Your task to perform on an android device: change your default location settings in chrome Image 0: 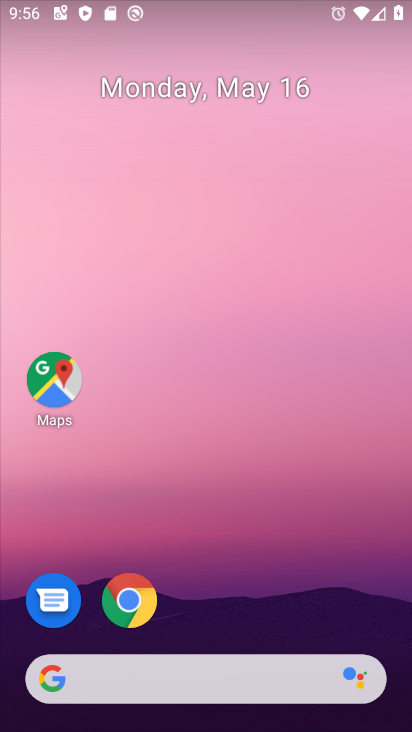
Step 0: click (269, 55)
Your task to perform on an android device: change your default location settings in chrome Image 1: 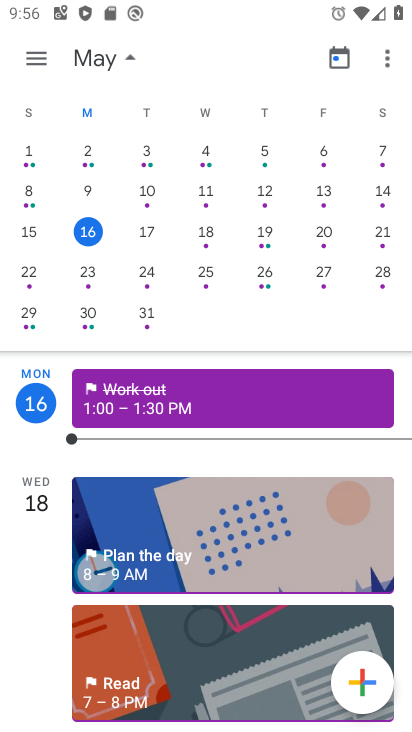
Step 1: press home button
Your task to perform on an android device: change your default location settings in chrome Image 2: 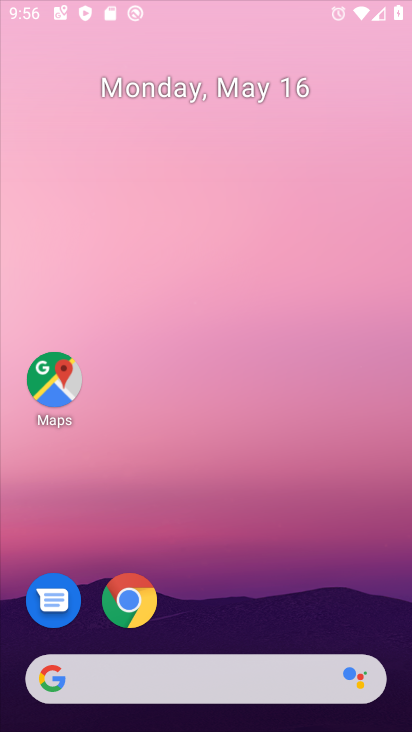
Step 2: drag from (240, 591) to (254, 62)
Your task to perform on an android device: change your default location settings in chrome Image 3: 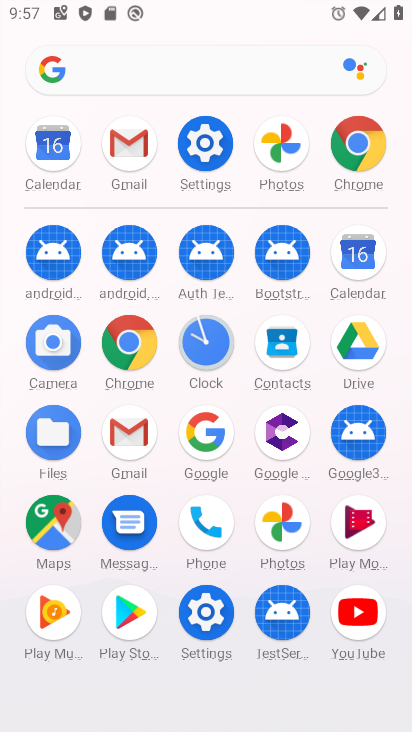
Step 3: click (351, 140)
Your task to perform on an android device: change your default location settings in chrome Image 4: 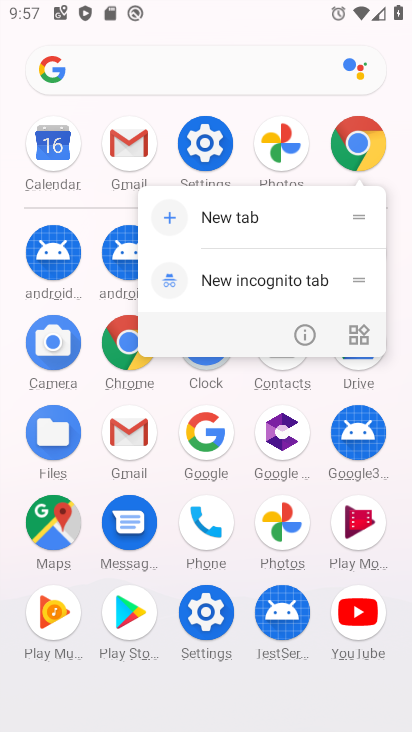
Step 4: click (299, 334)
Your task to perform on an android device: change your default location settings in chrome Image 5: 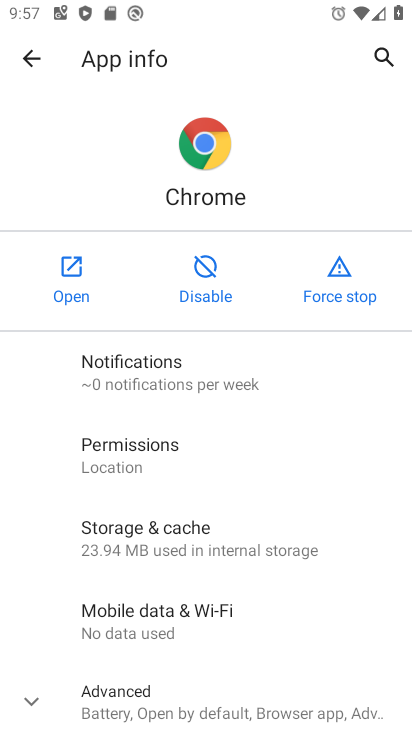
Step 5: click (75, 259)
Your task to perform on an android device: change your default location settings in chrome Image 6: 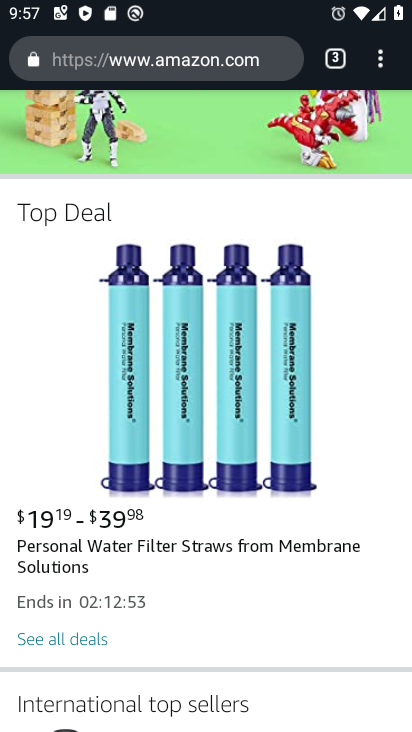
Step 6: drag from (231, 562) to (225, 370)
Your task to perform on an android device: change your default location settings in chrome Image 7: 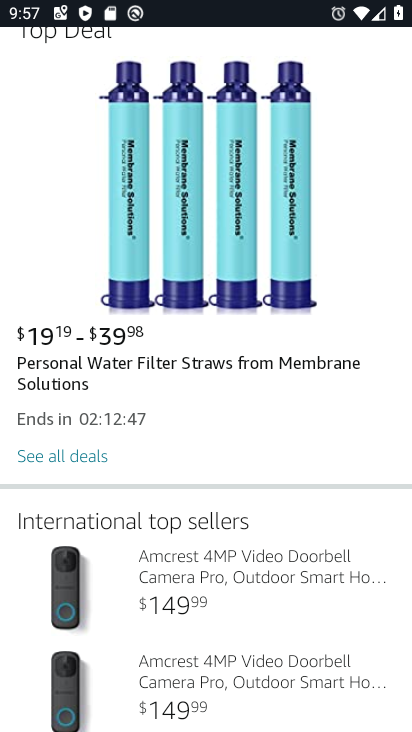
Step 7: drag from (260, 266) to (343, 517)
Your task to perform on an android device: change your default location settings in chrome Image 8: 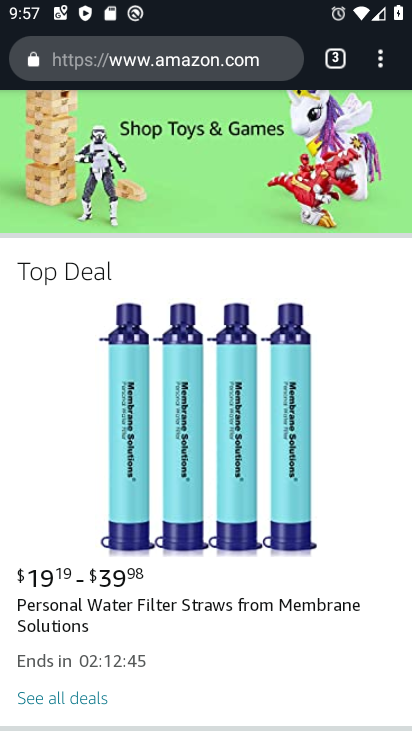
Step 8: drag from (218, 312) to (364, 645)
Your task to perform on an android device: change your default location settings in chrome Image 9: 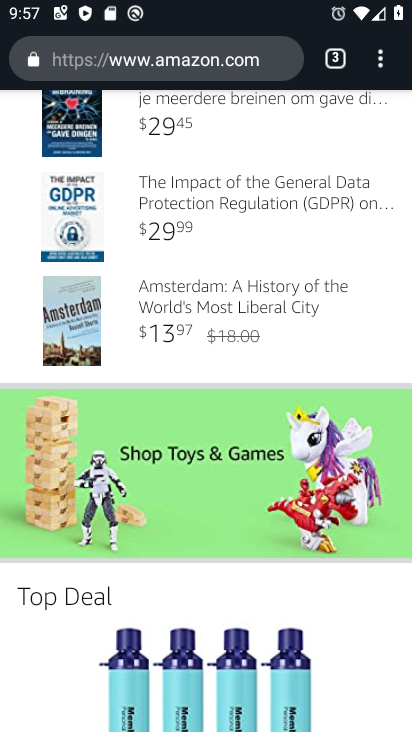
Step 9: click (386, 45)
Your task to perform on an android device: change your default location settings in chrome Image 10: 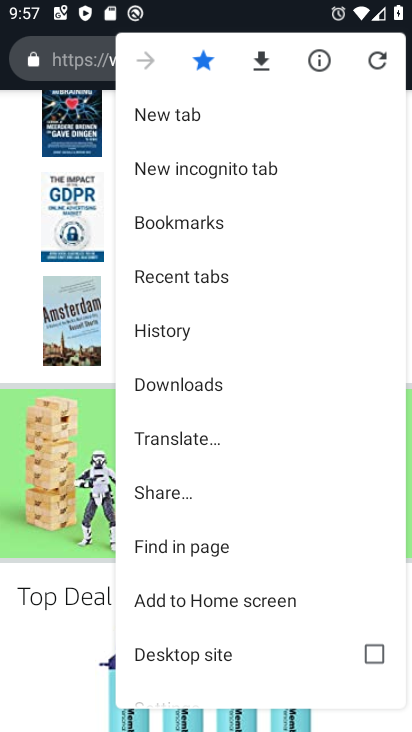
Step 10: drag from (227, 622) to (250, 245)
Your task to perform on an android device: change your default location settings in chrome Image 11: 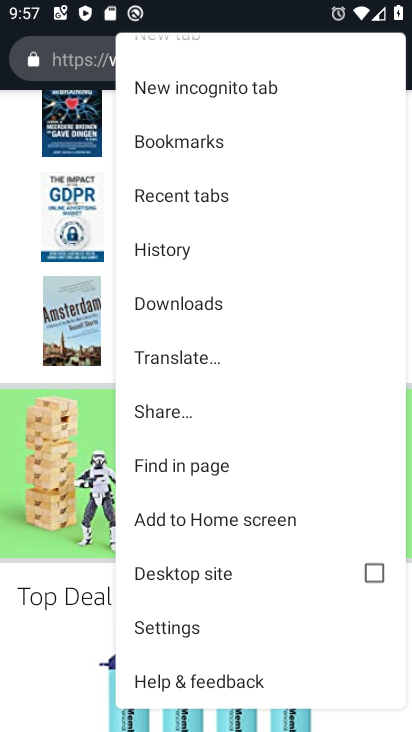
Step 11: click (184, 627)
Your task to perform on an android device: change your default location settings in chrome Image 12: 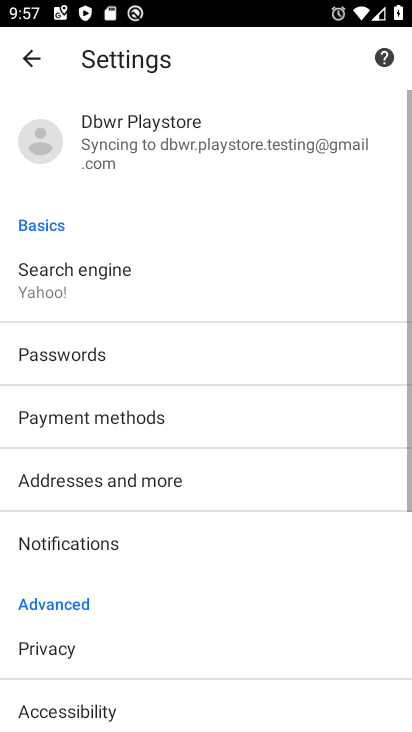
Step 12: drag from (191, 582) to (243, 174)
Your task to perform on an android device: change your default location settings in chrome Image 13: 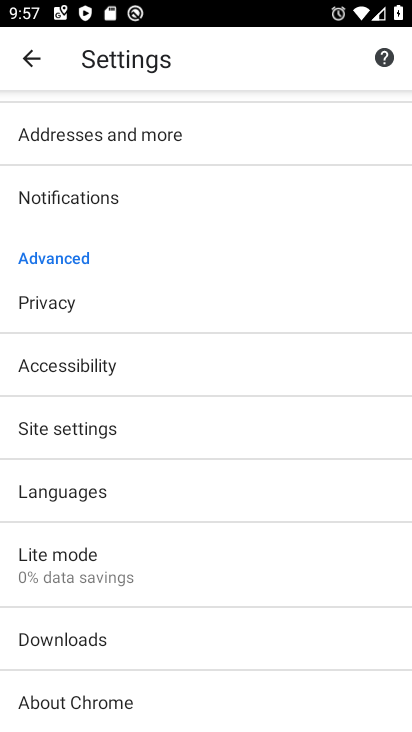
Step 13: click (164, 420)
Your task to perform on an android device: change your default location settings in chrome Image 14: 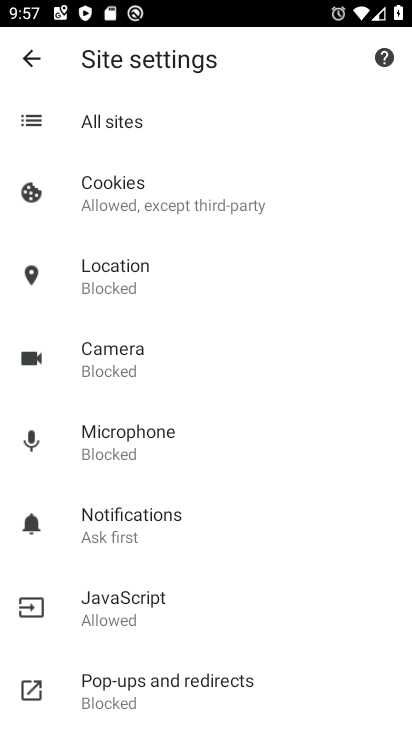
Step 14: click (144, 278)
Your task to perform on an android device: change your default location settings in chrome Image 15: 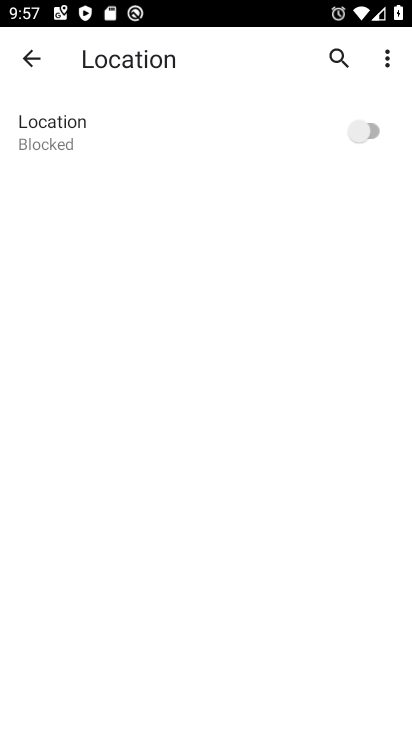
Step 15: click (295, 139)
Your task to perform on an android device: change your default location settings in chrome Image 16: 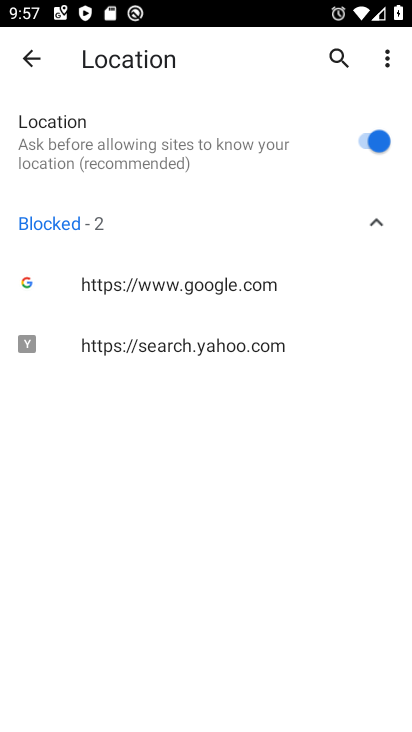
Step 16: task complete